Your task to perform on an android device: Is it going to rain tomorrow? Image 0: 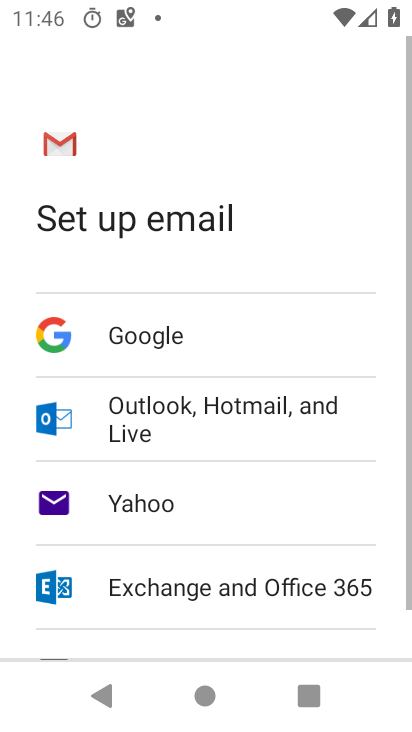
Step 0: press home button
Your task to perform on an android device: Is it going to rain tomorrow? Image 1: 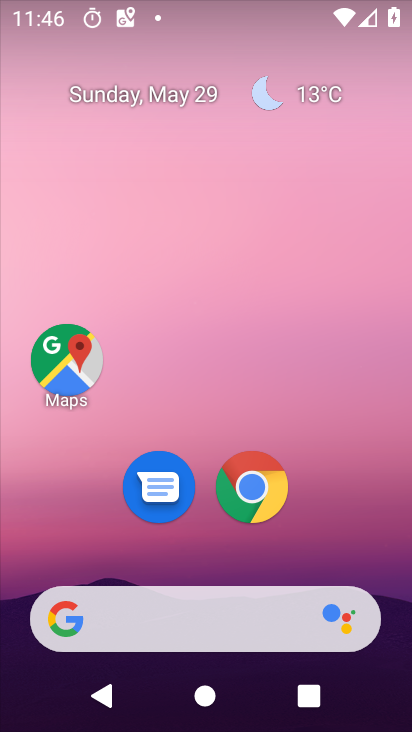
Step 1: click (327, 89)
Your task to perform on an android device: Is it going to rain tomorrow? Image 2: 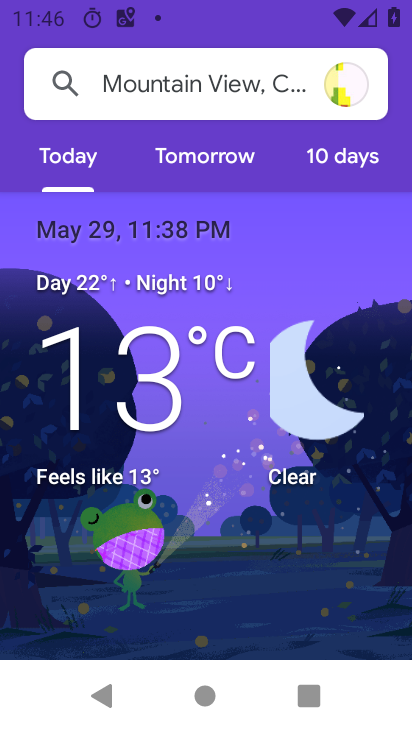
Step 2: click (233, 154)
Your task to perform on an android device: Is it going to rain tomorrow? Image 3: 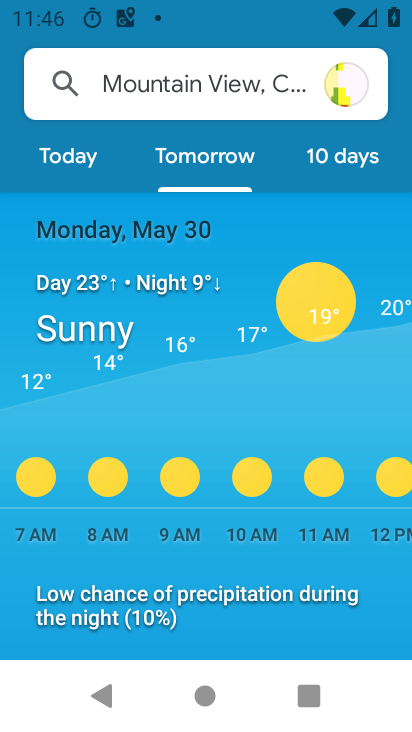
Step 3: task complete